Your task to perform on an android device: Go to calendar. Show me events next week Image 0: 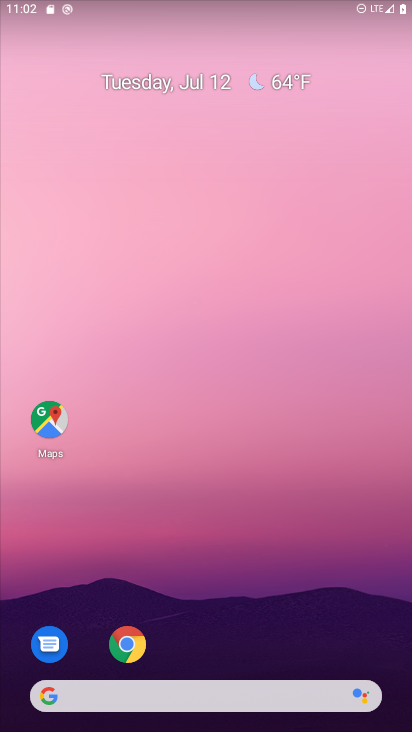
Step 0: drag from (297, 648) to (277, 47)
Your task to perform on an android device: Go to calendar. Show me events next week Image 1: 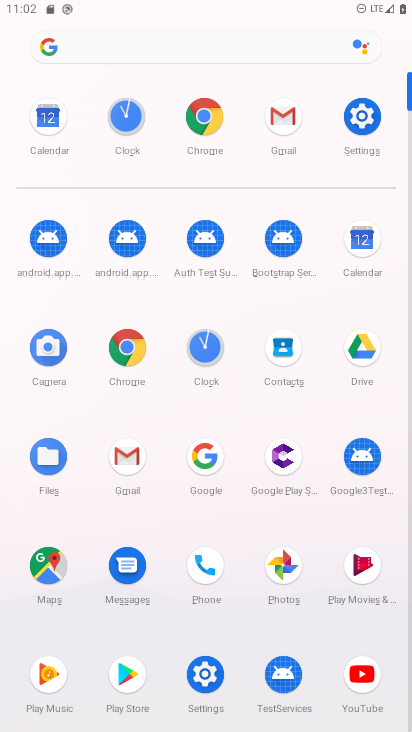
Step 1: click (57, 122)
Your task to perform on an android device: Go to calendar. Show me events next week Image 2: 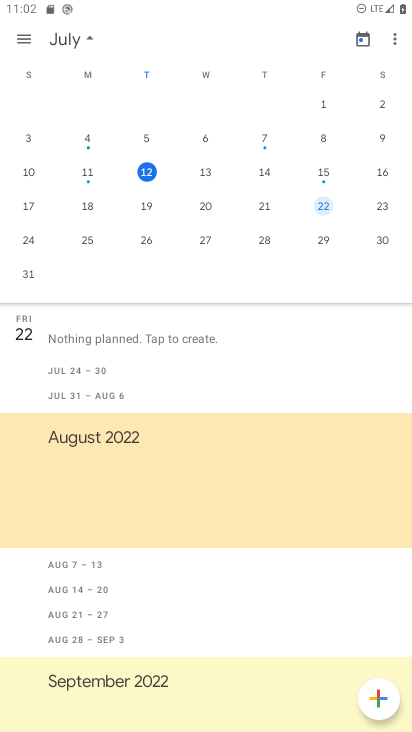
Step 2: task complete